Your task to perform on an android device: Open wifi settings Image 0: 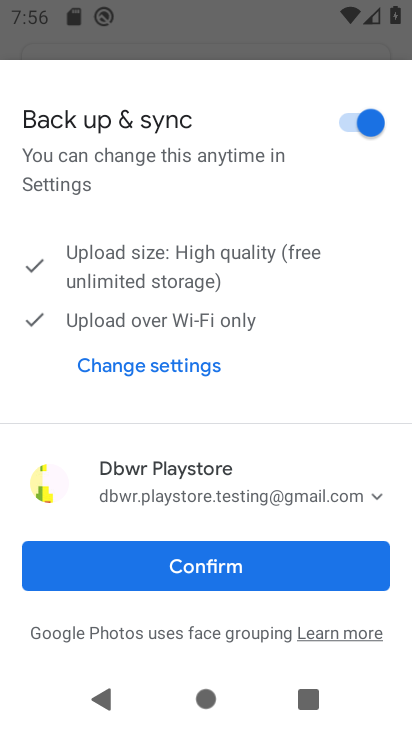
Step 0: press home button
Your task to perform on an android device: Open wifi settings Image 1: 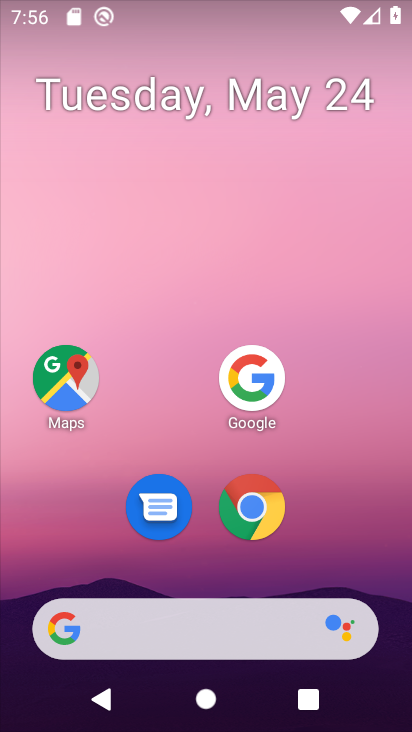
Step 1: drag from (149, 632) to (327, 5)
Your task to perform on an android device: Open wifi settings Image 2: 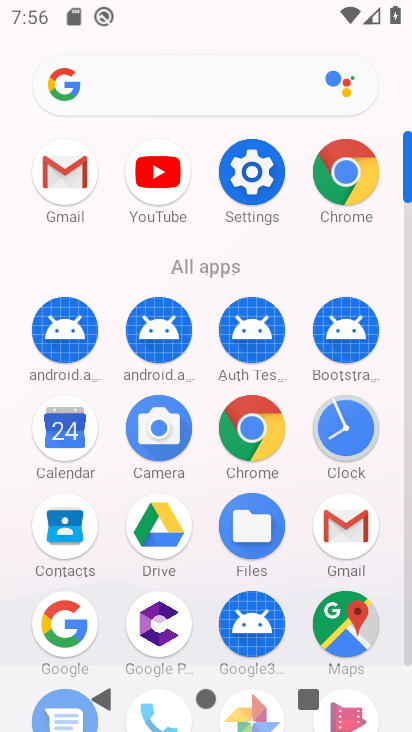
Step 2: click (263, 174)
Your task to perform on an android device: Open wifi settings Image 3: 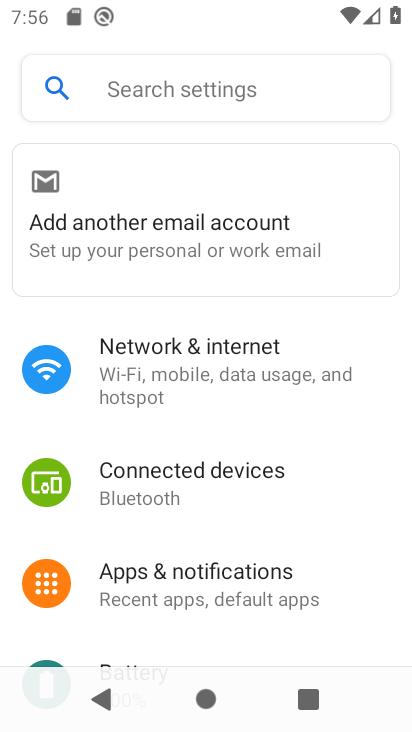
Step 3: click (182, 370)
Your task to perform on an android device: Open wifi settings Image 4: 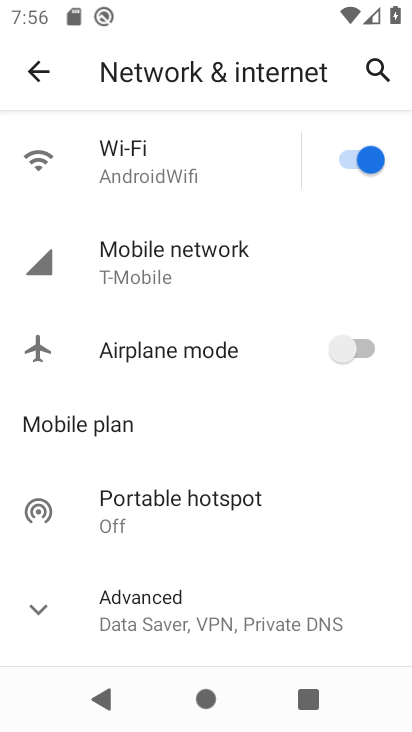
Step 4: click (139, 176)
Your task to perform on an android device: Open wifi settings Image 5: 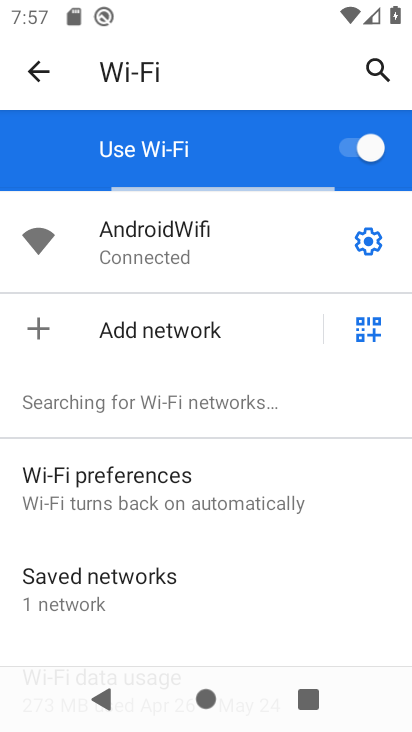
Step 5: task complete